Your task to perform on an android device: empty trash in google photos Image 0: 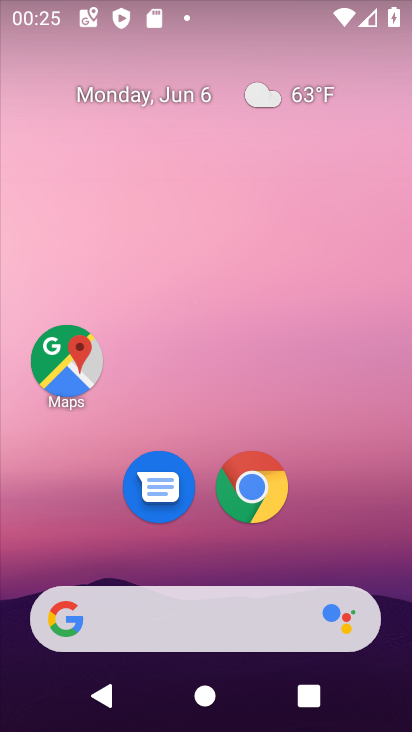
Step 0: drag from (400, 623) to (315, 36)
Your task to perform on an android device: empty trash in google photos Image 1: 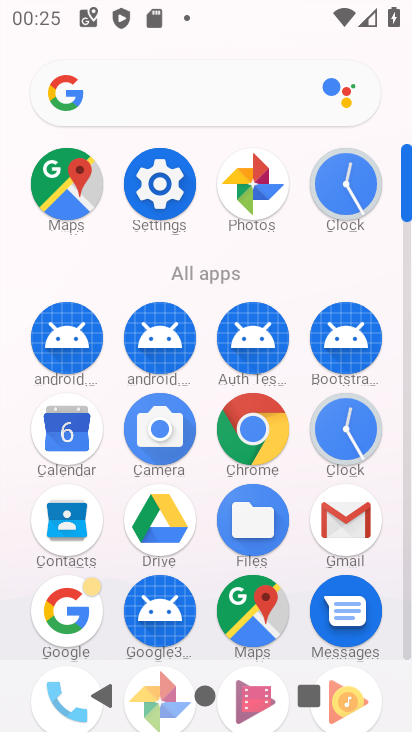
Step 1: click (408, 641)
Your task to perform on an android device: empty trash in google photos Image 2: 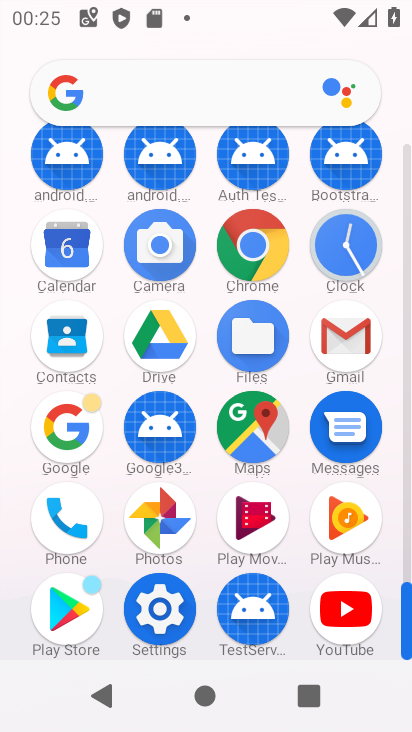
Step 2: click (160, 520)
Your task to perform on an android device: empty trash in google photos Image 3: 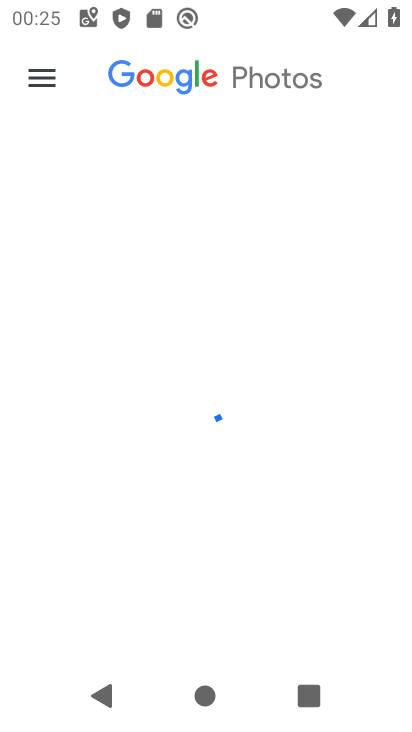
Step 3: click (39, 81)
Your task to perform on an android device: empty trash in google photos Image 4: 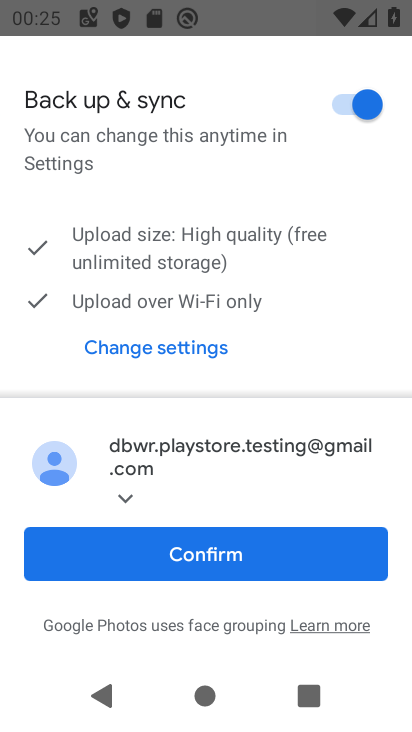
Step 4: click (216, 556)
Your task to perform on an android device: empty trash in google photos Image 5: 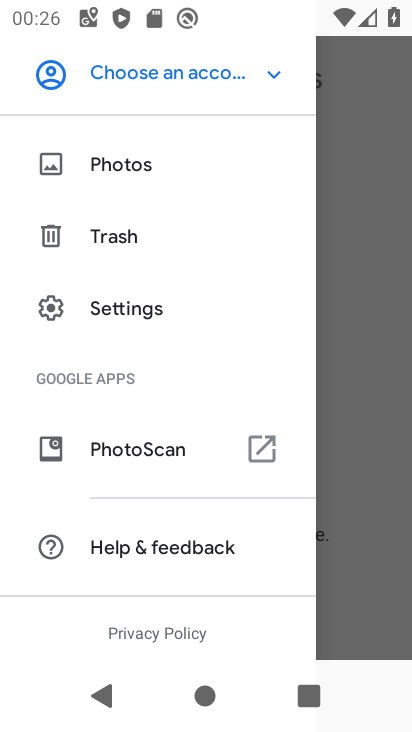
Step 5: click (113, 231)
Your task to perform on an android device: empty trash in google photos Image 6: 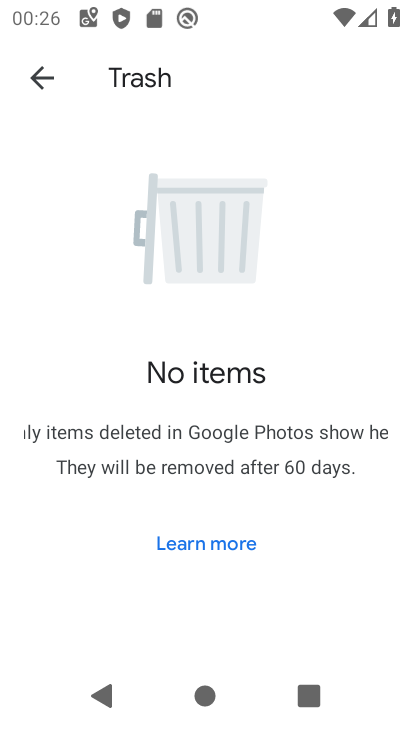
Step 6: task complete